Your task to perform on an android device: change the clock display to digital Image 0: 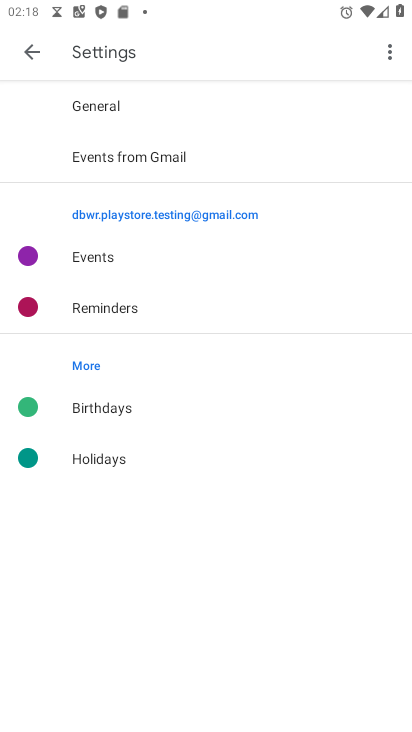
Step 0: press home button
Your task to perform on an android device: change the clock display to digital Image 1: 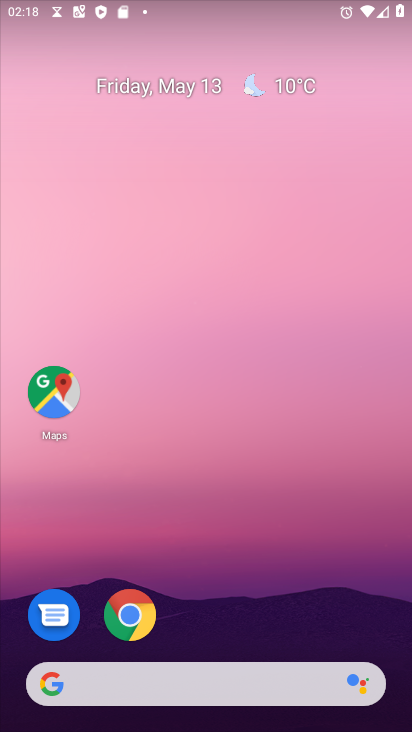
Step 1: drag from (215, 594) to (125, 153)
Your task to perform on an android device: change the clock display to digital Image 2: 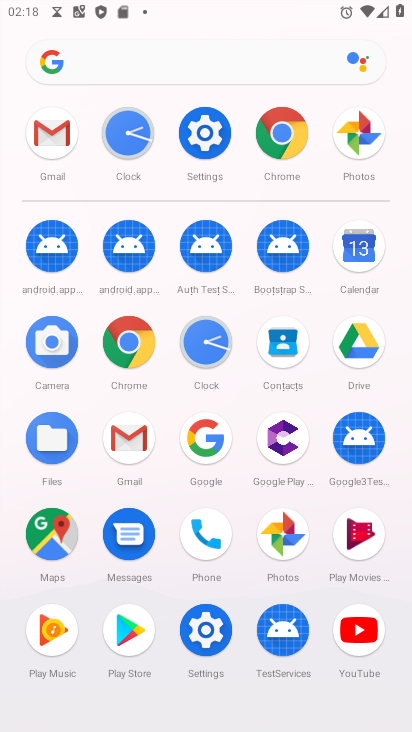
Step 2: click (200, 350)
Your task to perform on an android device: change the clock display to digital Image 3: 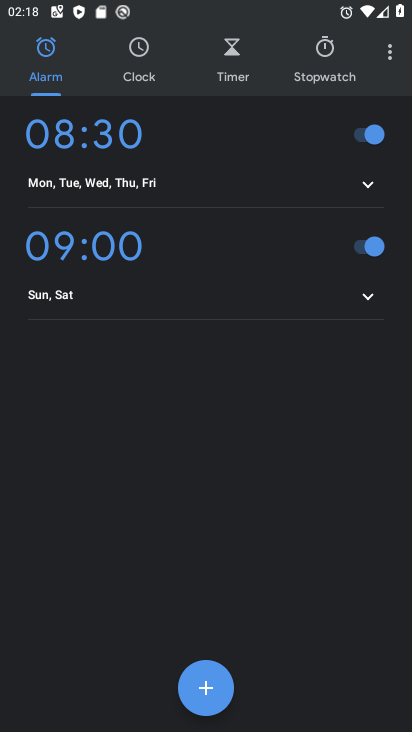
Step 3: click (392, 52)
Your task to perform on an android device: change the clock display to digital Image 4: 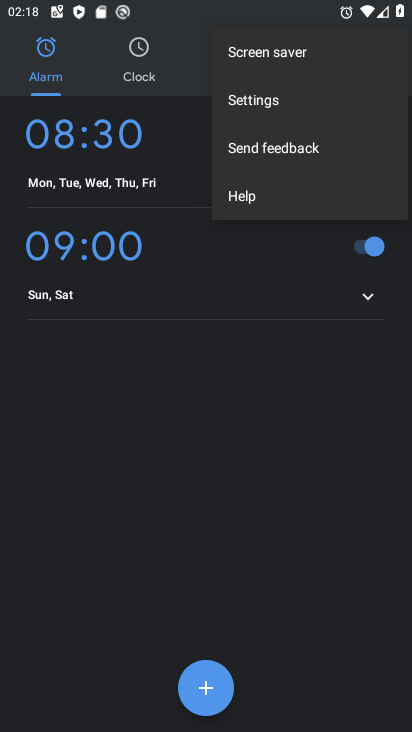
Step 4: click (264, 110)
Your task to perform on an android device: change the clock display to digital Image 5: 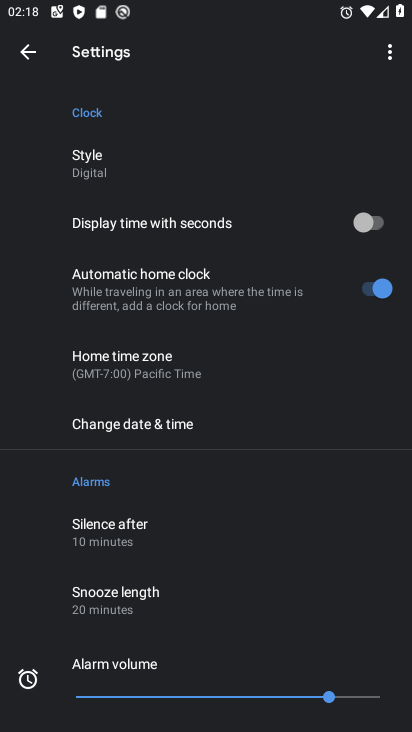
Step 5: task complete